Your task to perform on an android device: toggle notifications settings in the gmail app Image 0: 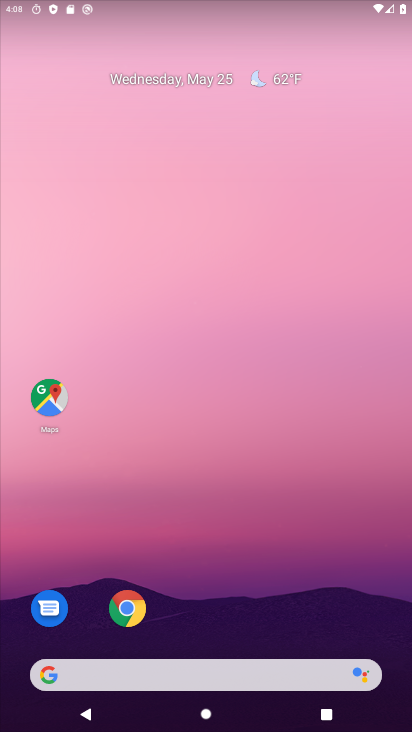
Step 0: drag from (255, 595) to (228, 179)
Your task to perform on an android device: toggle notifications settings in the gmail app Image 1: 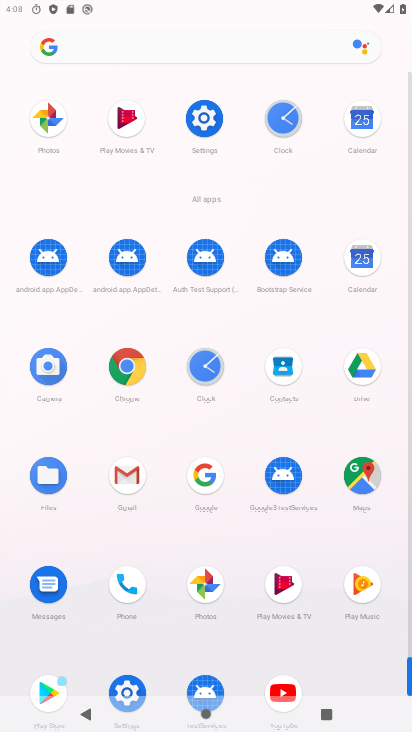
Step 1: click (126, 471)
Your task to perform on an android device: toggle notifications settings in the gmail app Image 2: 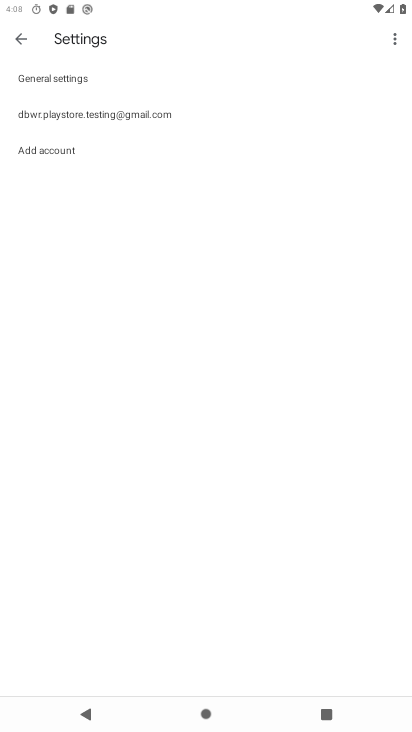
Step 2: click (108, 114)
Your task to perform on an android device: toggle notifications settings in the gmail app Image 3: 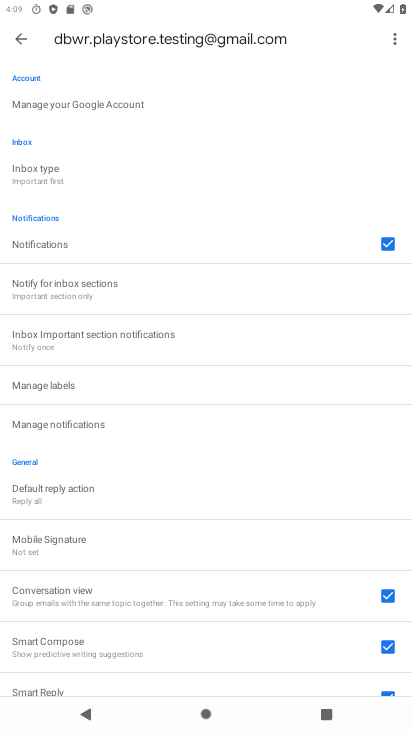
Step 3: click (54, 425)
Your task to perform on an android device: toggle notifications settings in the gmail app Image 4: 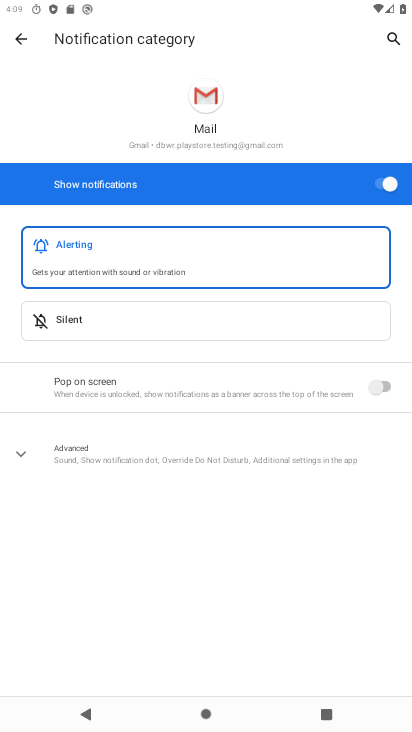
Step 4: click (382, 182)
Your task to perform on an android device: toggle notifications settings in the gmail app Image 5: 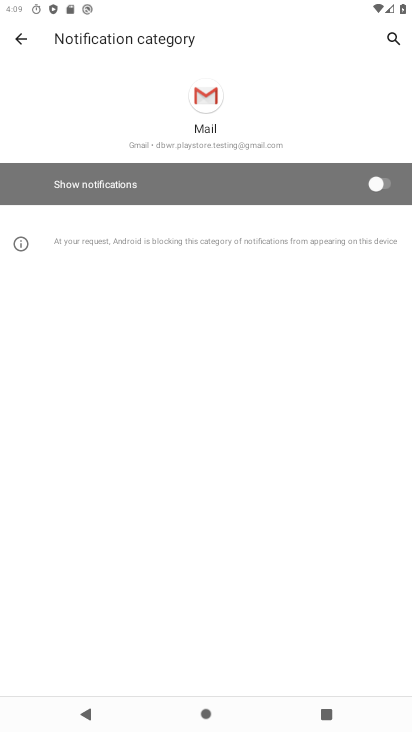
Step 5: task complete